Your task to perform on an android device: Open CNN.com Image 0: 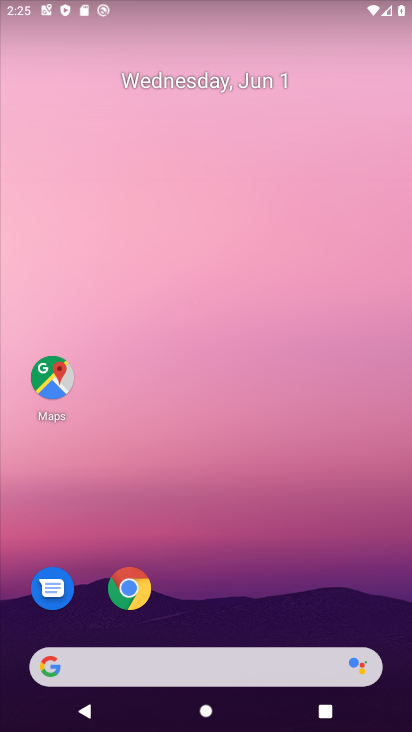
Step 0: click (126, 586)
Your task to perform on an android device: Open CNN.com Image 1: 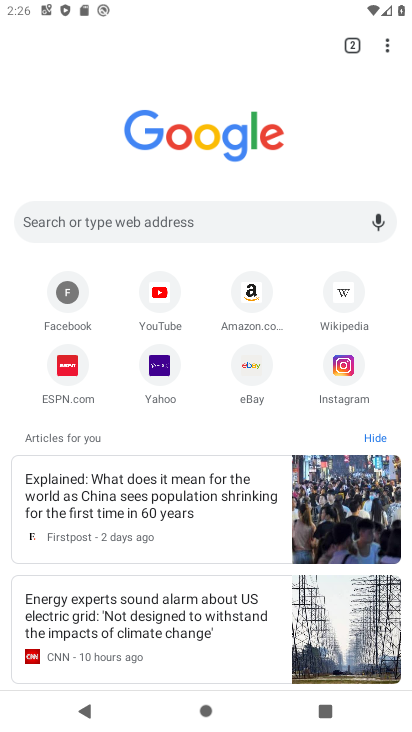
Step 1: click (121, 233)
Your task to perform on an android device: Open CNN.com Image 2: 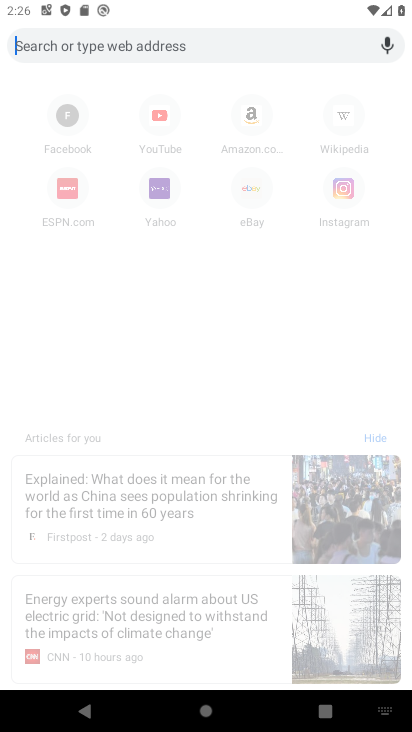
Step 2: click (128, 47)
Your task to perform on an android device: Open CNN.com Image 3: 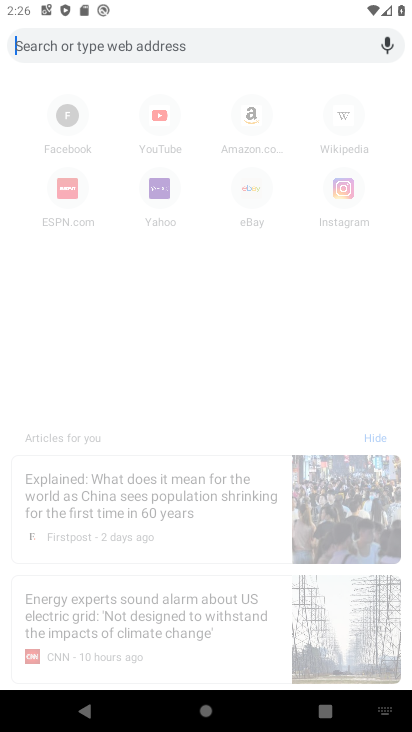
Step 3: type "cnn.com"
Your task to perform on an android device: Open CNN.com Image 4: 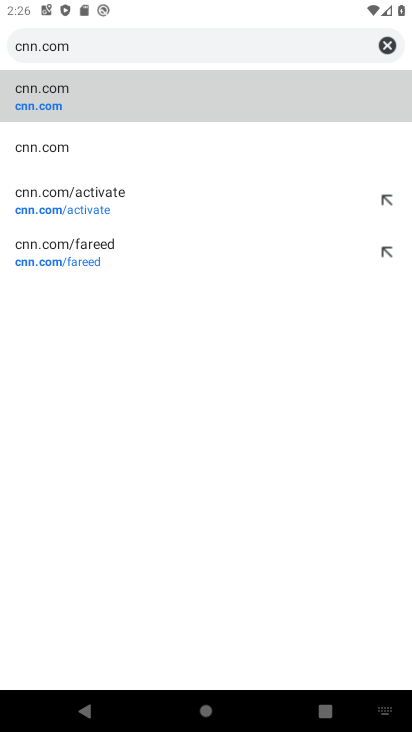
Step 4: click (137, 100)
Your task to perform on an android device: Open CNN.com Image 5: 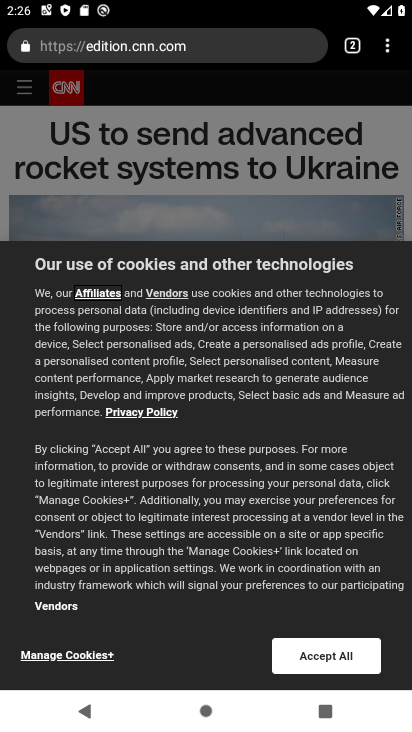
Step 5: task complete